Your task to perform on an android device: Open calendar and show me the second week of next month Image 0: 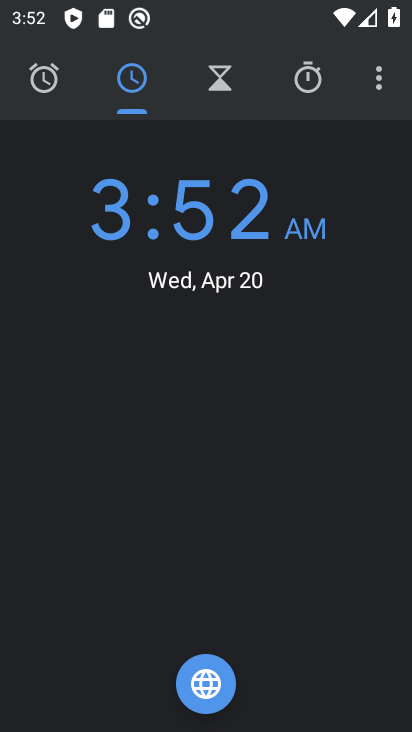
Step 0: press home button
Your task to perform on an android device: Open calendar and show me the second week of next month Image 1: 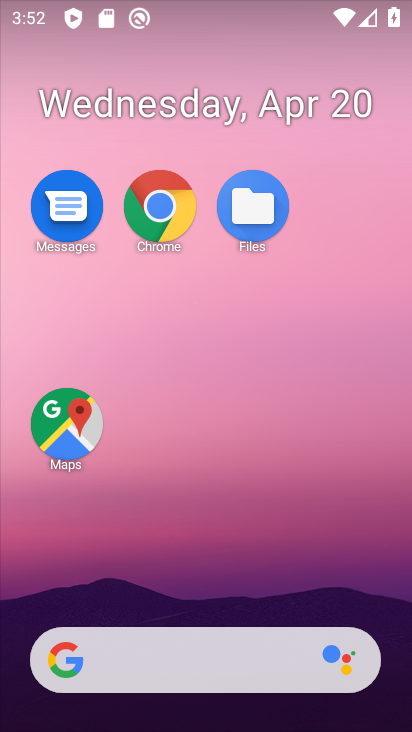
Step 1: drag from (151, 494) to (259, 15)
Your task to perform on an android device: Open calendar and show me the second week of next month Image 2: 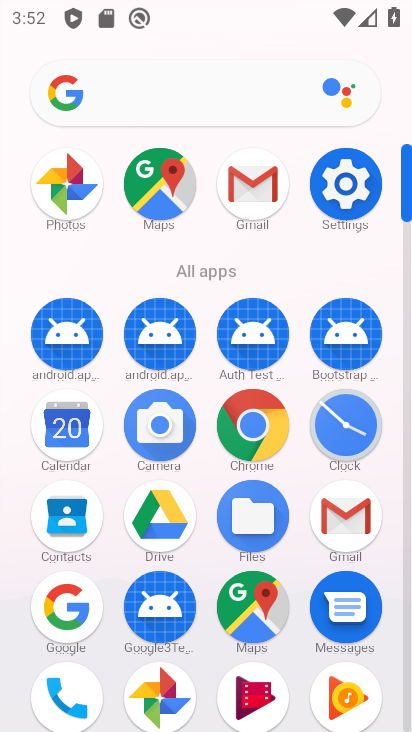
Step 2: click (61, 443)
Your task to perform on an android device: Open calendar and show me the second week of next month Image 3: 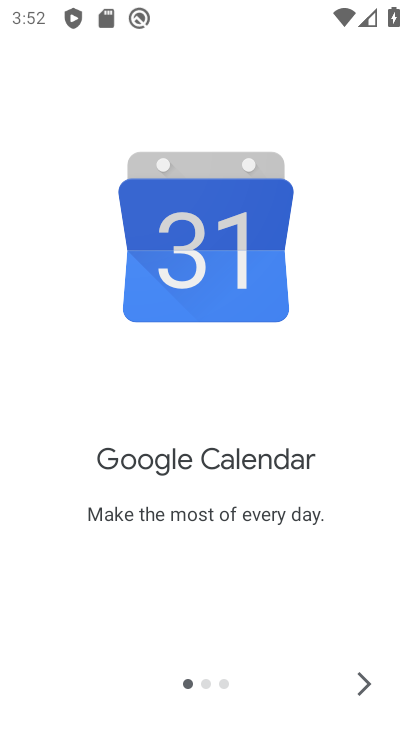
Step 3: click (365, 684)
Your task to perform on an android device: Open calendar and show me the second week of next month Image 4: 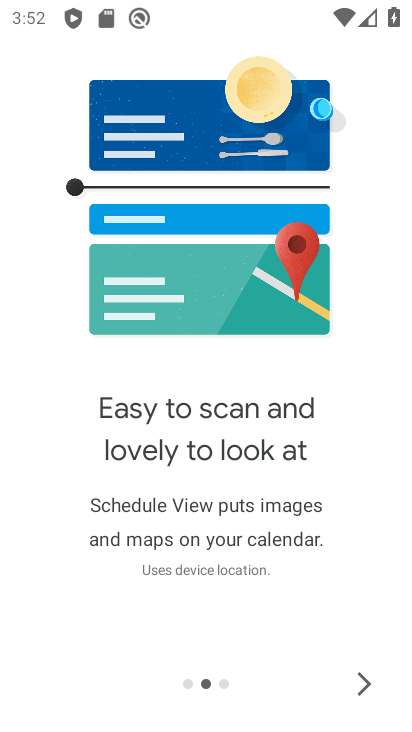
Step 4: click (364, 684)
Your task to perform on an android device: Open calendar and show me the second week of next month Image 5: 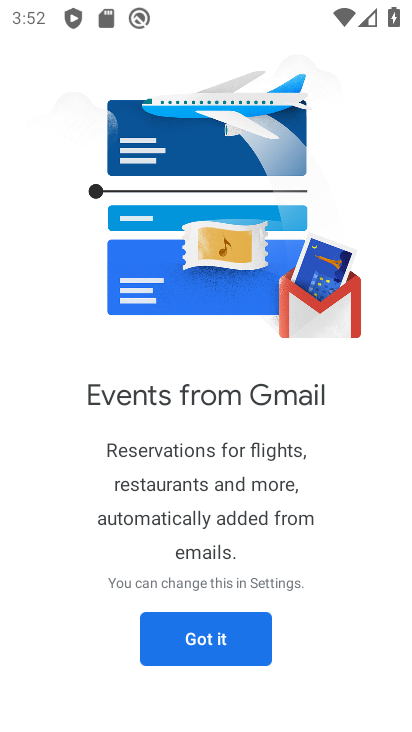
Step 5: click (215, 638)
Your task to perform on an android device: Open calendar and show me the second week of next month Image 6: 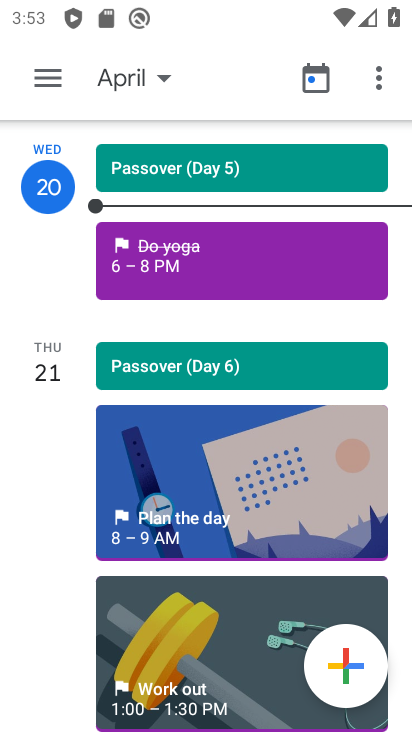
Step 6: click (47, 76)
Your task to perform on an android device: Open calendar and show me the second week of next month Image 7: 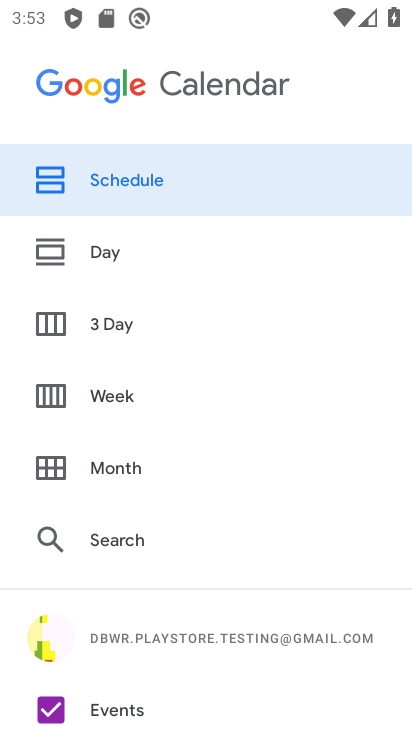
Step 7: click (42, 90)
Your task to perform on an android device: Open calendar and show me the second week of next month Image 8: 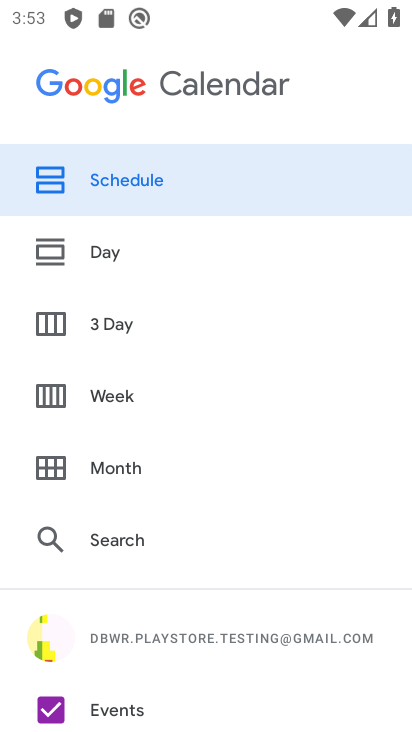
Step 8: click (108, 397)
Your task to perform on an android device: Open calendar and show me the second week of next month Image 9: 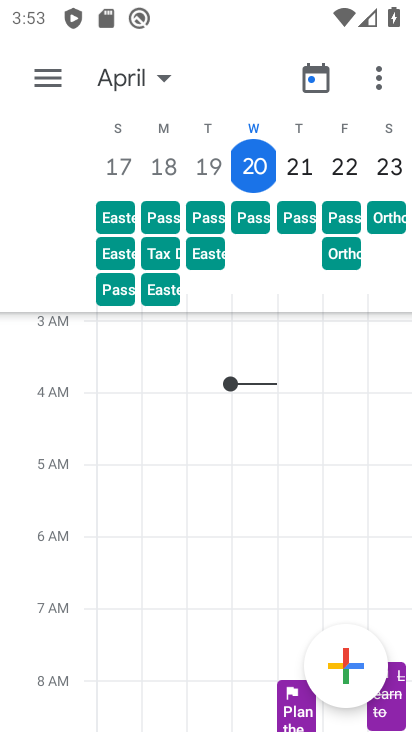
Step 9: task complete